Your task to perform on an android device: set default search engine in the chrome app Image 0: 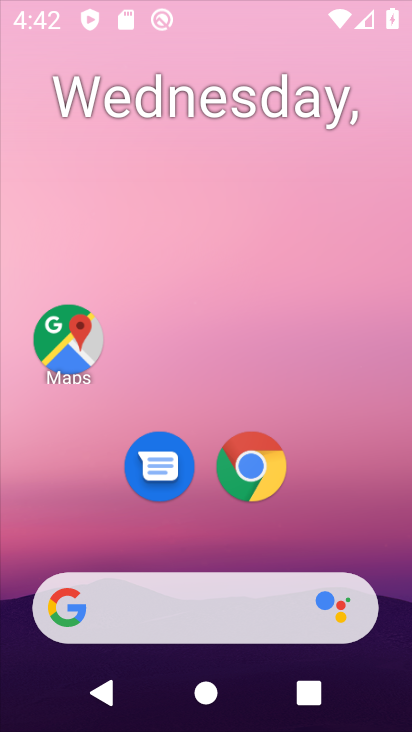
Step 0: drag from (338, 485) to (250, 2)
Your task to perform on an android device: set default search engine in the chrome app Image 1: 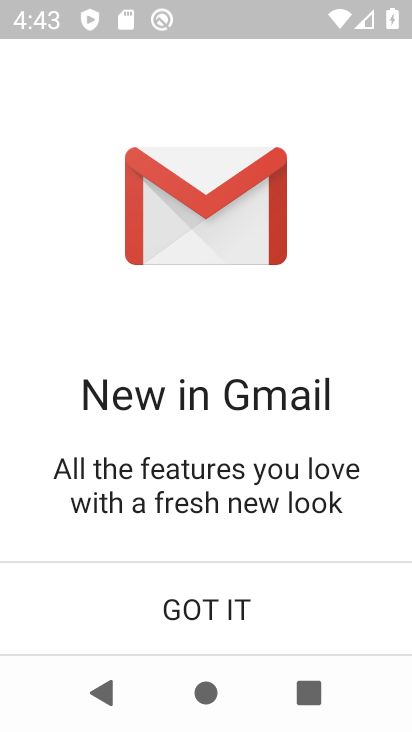
Step 1: press back button
Your task to perform on an android device: set default search engine in the chrome app Image 2: 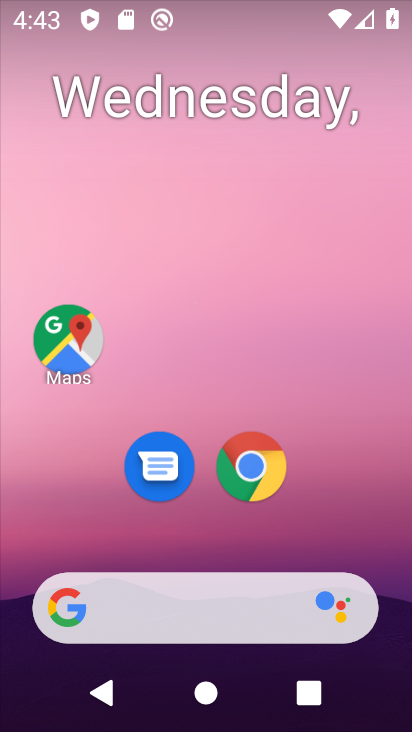
Step 2: drag from (341, 527) to (297, 20)
Your task to perform on an android device: set default search engine in the chrome app Image 3: 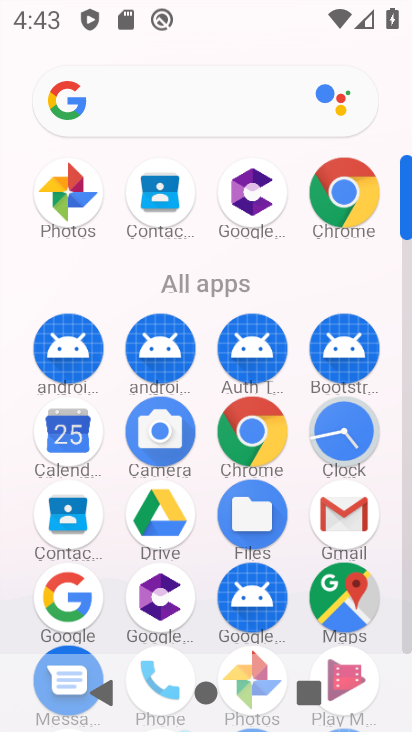
Step 3: click (347, 184)
Your task to perform on an android device: set default search engine in the chrome app Image 4: 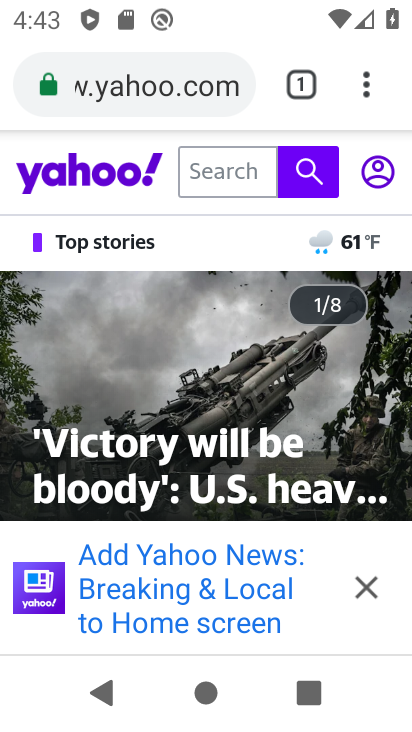
Step 4: drag from (364, 86) to (147, 511)
Your task to perform on an android device: set default search engine in the chrome app Image 5: 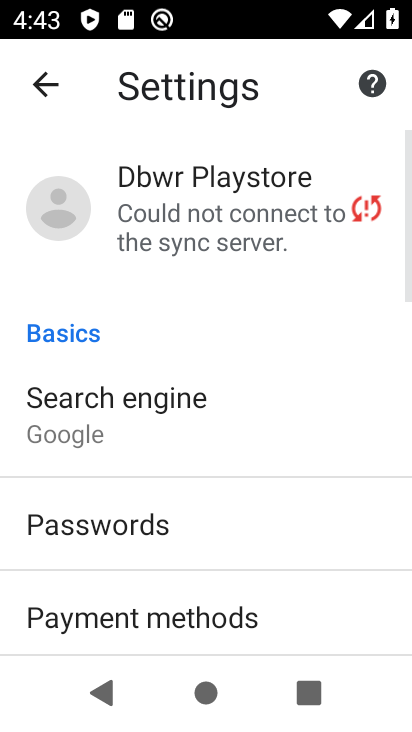
Step 5: drag from (267, 553) to (271, 160)
Your task to perform on an android device: set default search engine in the chrome app Image 6: 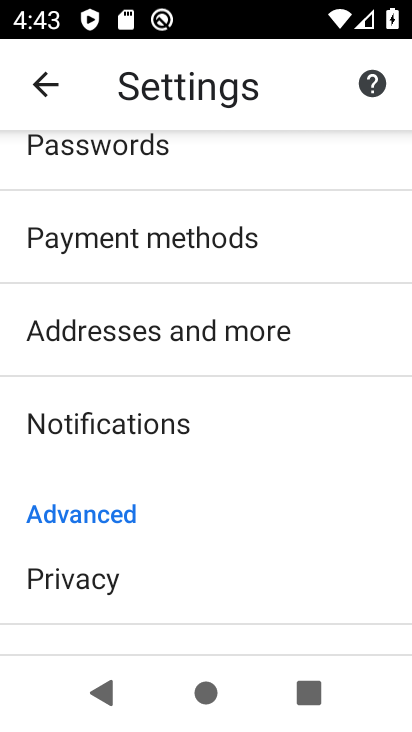
Step 6: drag from (210, 559) to (211, 227)
Your task to perform on an android device: set default search engine in the chrome app Image 7: 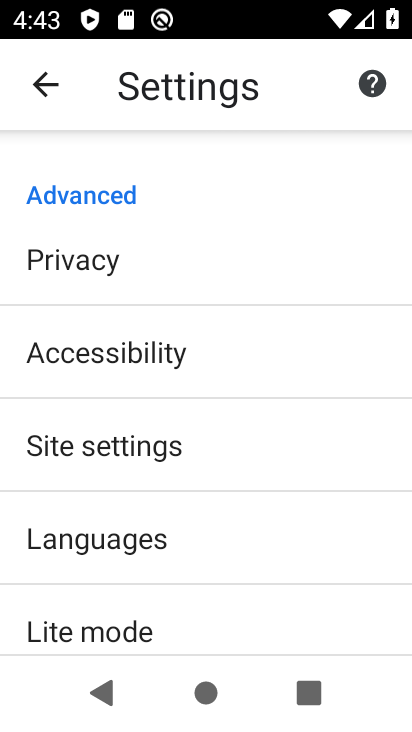
Step 7: drag from (195, 583) to (227, 254)
Your task to perform on an android device: set default search engine in the chrome app Image 8: 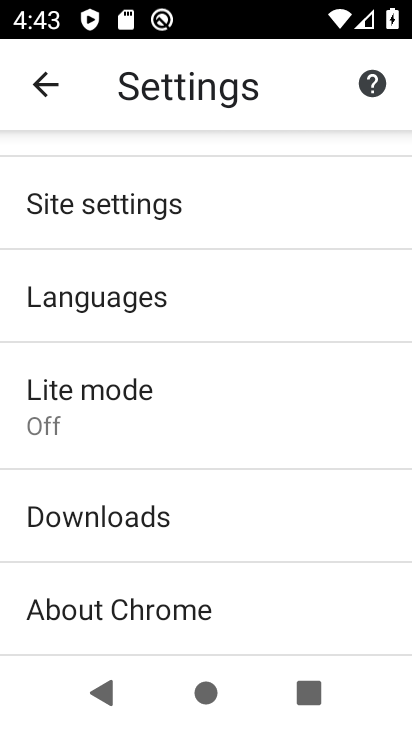
Step 8: drag from (224, 551) to (232, 208)
Your task to perform on an android device: set default search engine in the chrome app Image 9: 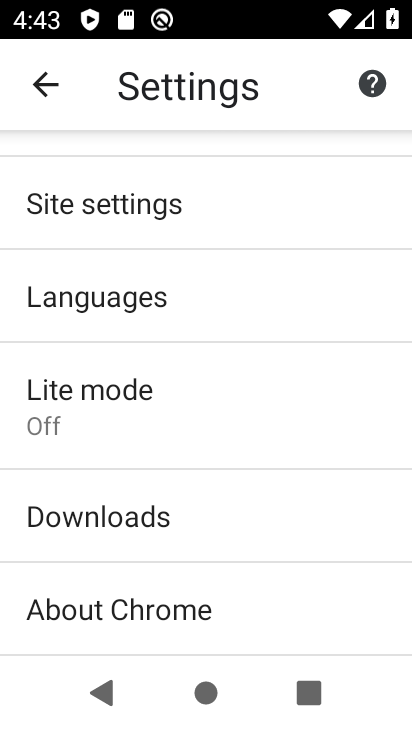
Step 9: drag from (171, 601) to (208, 210)
Your task to perform on an android device: set default search engine in the chrome app Image 10: 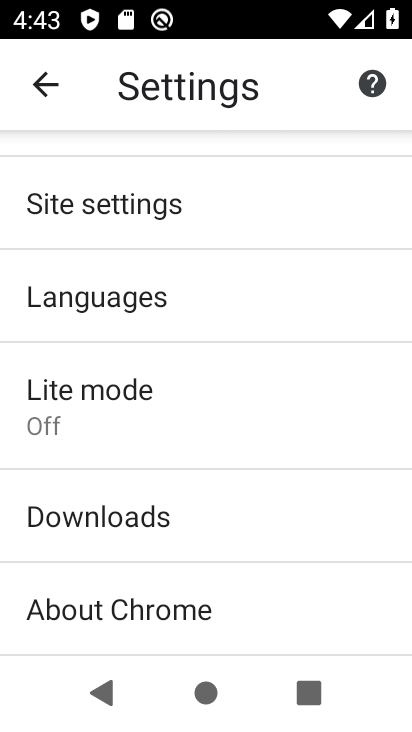
Step 10: drag from (164, 571) to (199, 247)
Your task to perform on an android device: set default search engine in the chrome app Image 11: 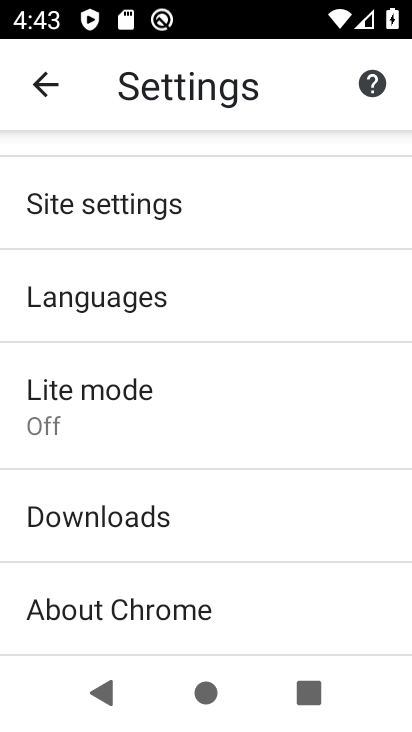
Step 11: drag from (189, 212) to (192, 527)
Your task to perform on an android device: set default search engine in the chrome app Image 12: 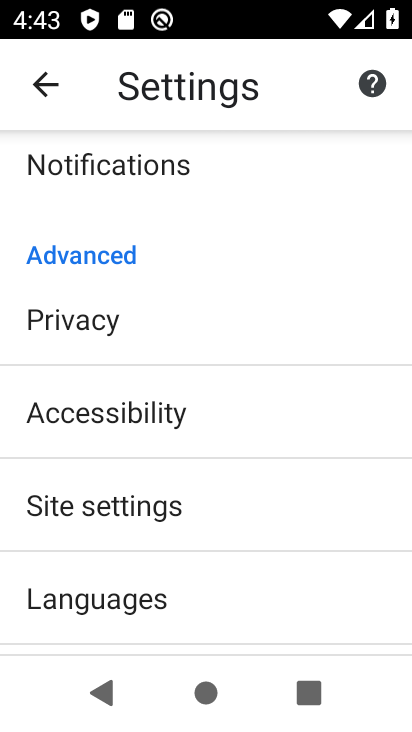
Step 12: drag from (197, 613) to (214, 378)
Your task to perform on an android device: set default search engine in the chrome app Image 13: 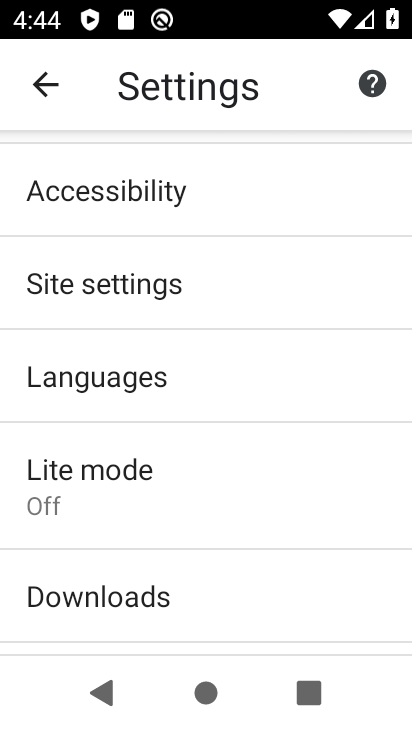
Step 13: click (139, 376)
Your task to perform on an android device: set default search engine in the chrome app Image 14: 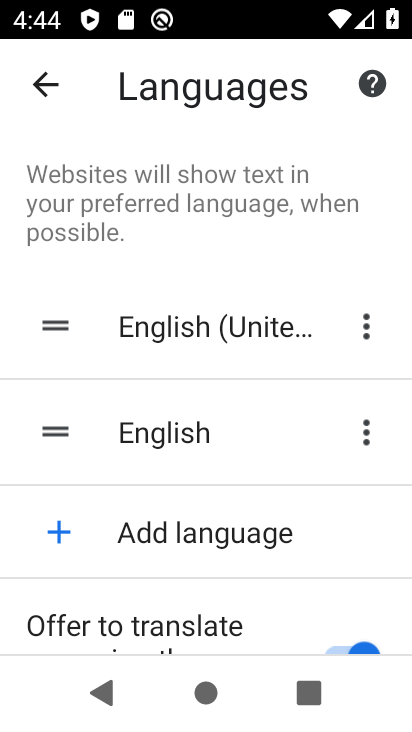
Step 14: drag from (251, 547) to (259, 215)
Your task to perform on an android device: set default search engine in the chrome app Image 15: 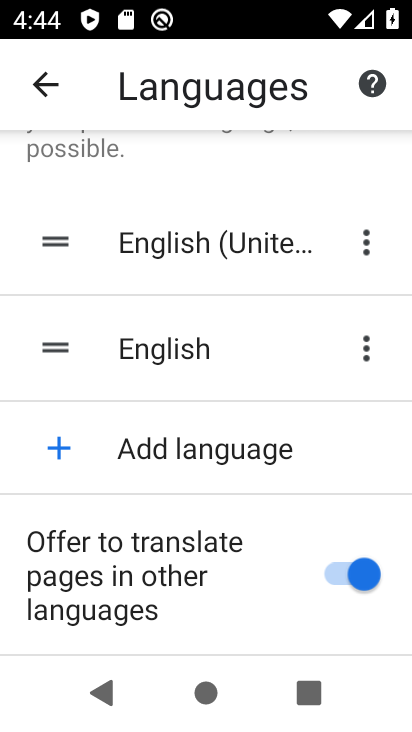
Step 15: click (43, 89)
Your task to perform on an android device: set default search engine in the chrome app Image 16: 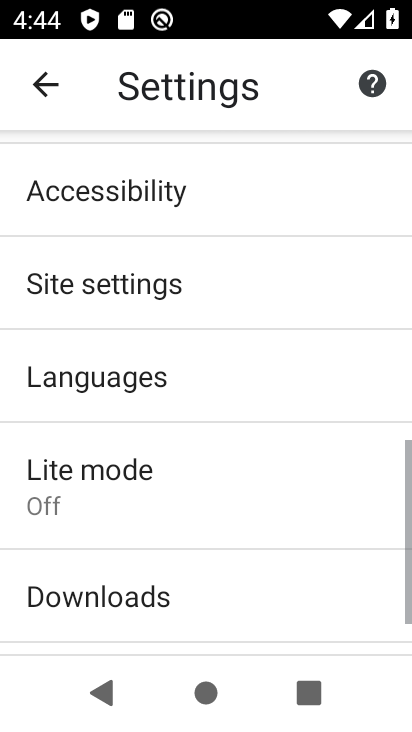
Step 16: drag from (249, 238) to (257, 641)
Your task to perform on an android device: set default search engine in the chrome app Image 17: 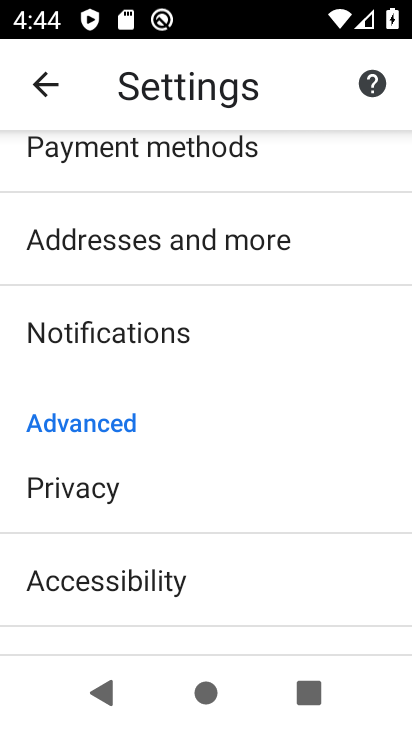
Step 17: drag from (229, 395) to (246, 600)
Your task to perform on an android device: set default search engine in the chrome app Image 18: 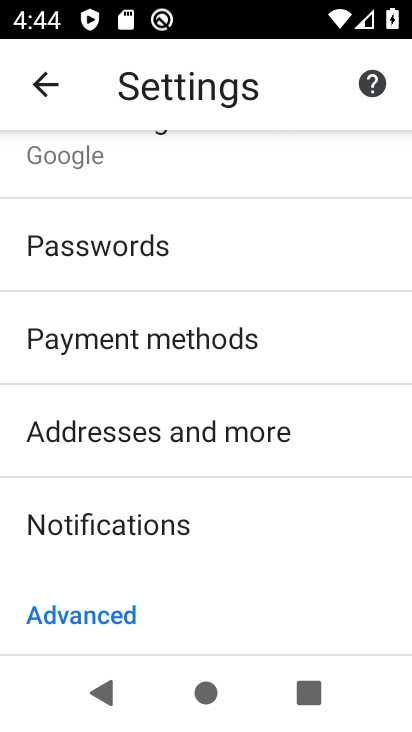
Step 18: drag from (191, 242) to (218, 521)
Your task to perform on an android device: set default search engine in the chrome app Image 19: 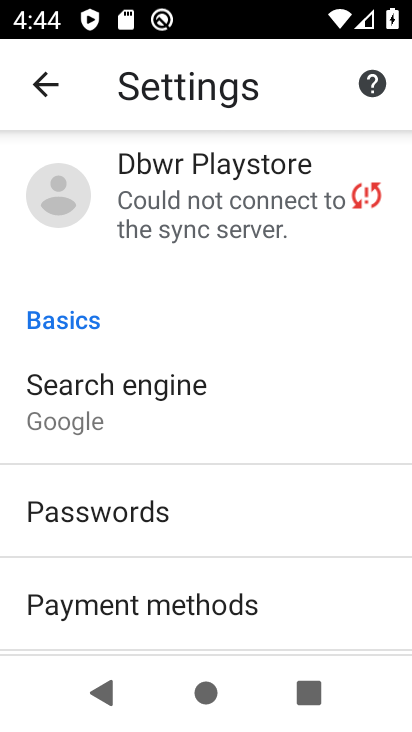
Step 19: click (164, 408)
Your task to perform on an android device: set default search engine in the chrome app Image 20: 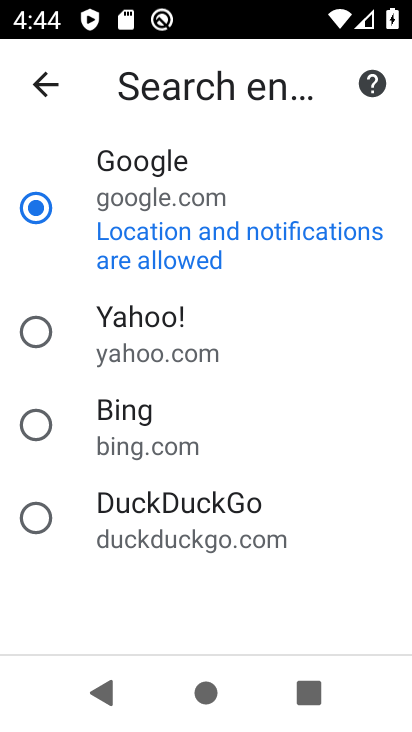
Step 20: click (113, 320)
Your task to perform on an android device: set default search engine in the chrome app Image 21: 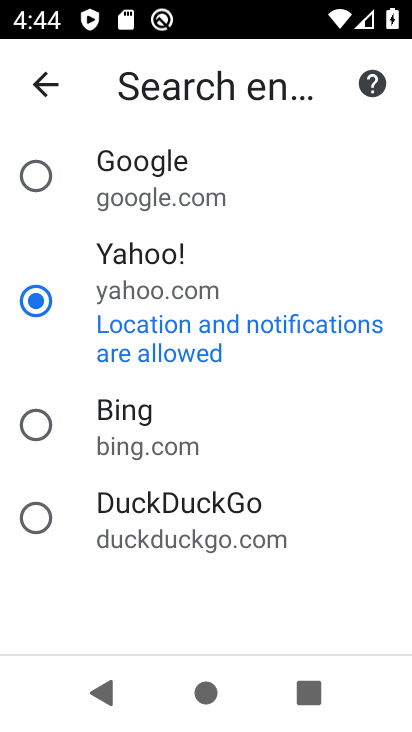
Step 21: task complete